Your task to perform on an android device: turn off data saver in the chrome app Image 0: 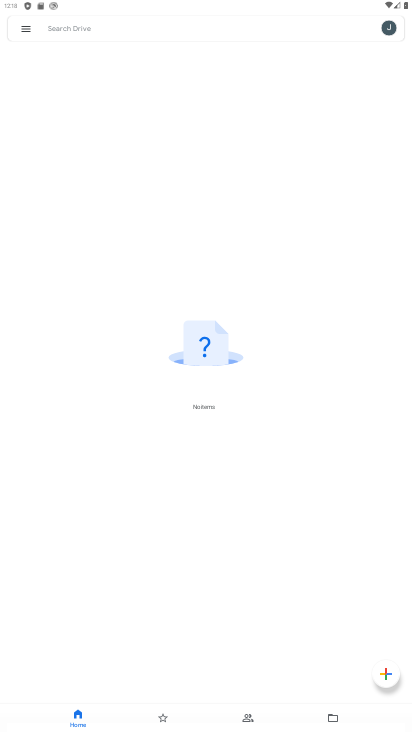
Step 0: drag from (185, 731) to (190, 117)
Your task to perform on an android device: turn off data saver in the chrome app Image 1: 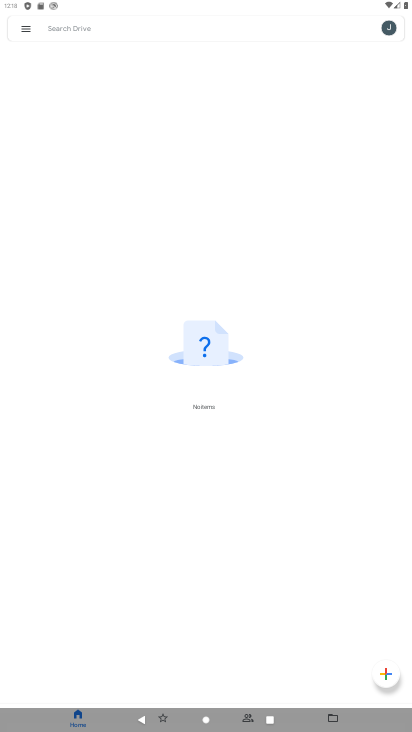
Step 1: click (205, 721)
Your task to perform on an android device: turn off data saver in the chrome app Image 2: 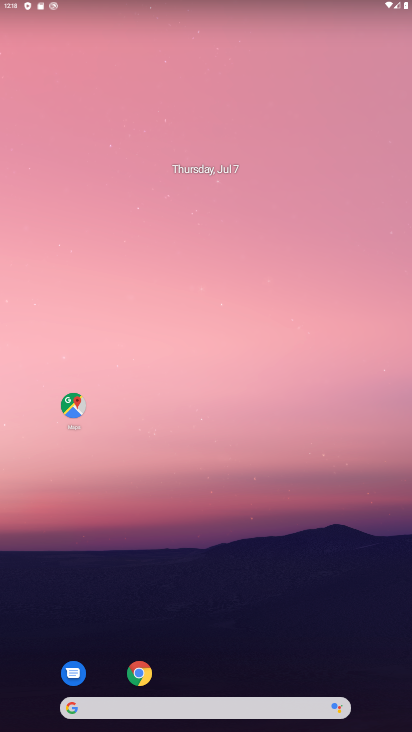
Step 2: click (131, 668)
Your task to perform on an android device: turn off data saver in the chrome app Image 3: 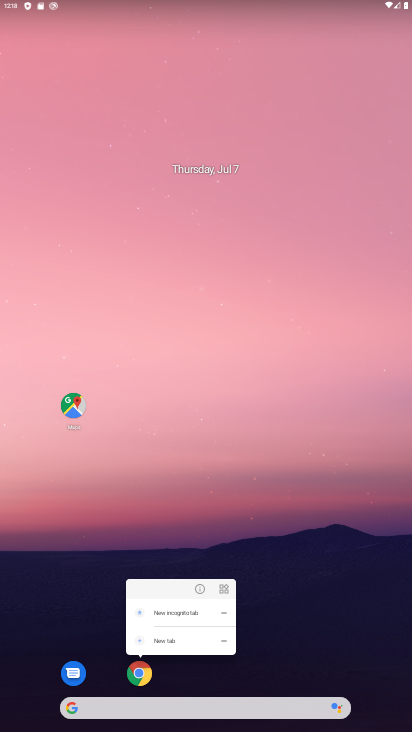
Step 3: click (143, 670)
Your task to perform on an android device: turn off data saver in the chrome app Image 4: 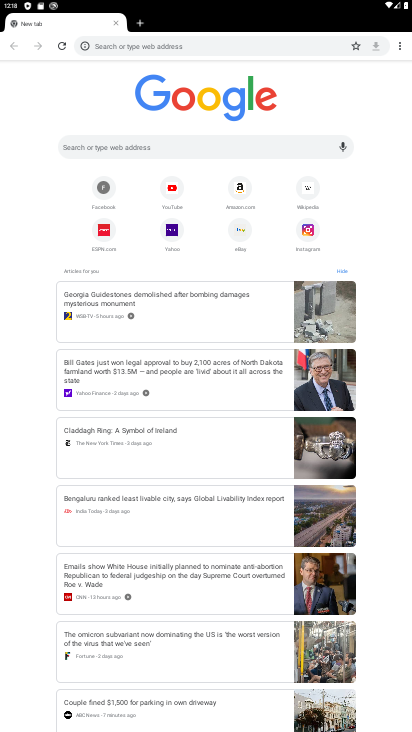
Step 4: click (405, 47)
Your task to perform on an android device: turn off data saver in the chrome app Image 5: 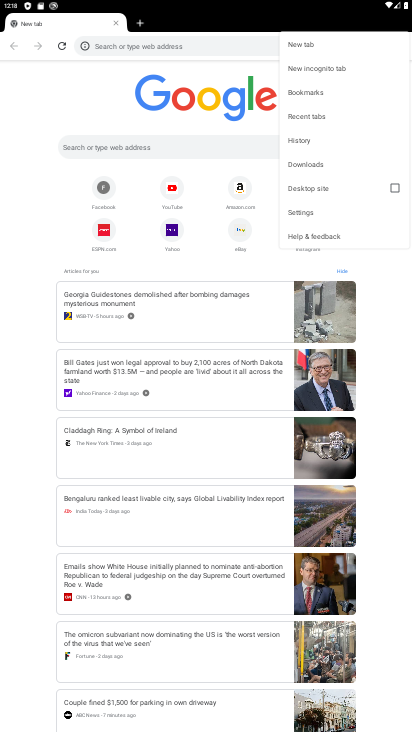
Step 5: click (311, 209)
Your task to perform on an android device: turn off data saver in the chrome app Image 6: 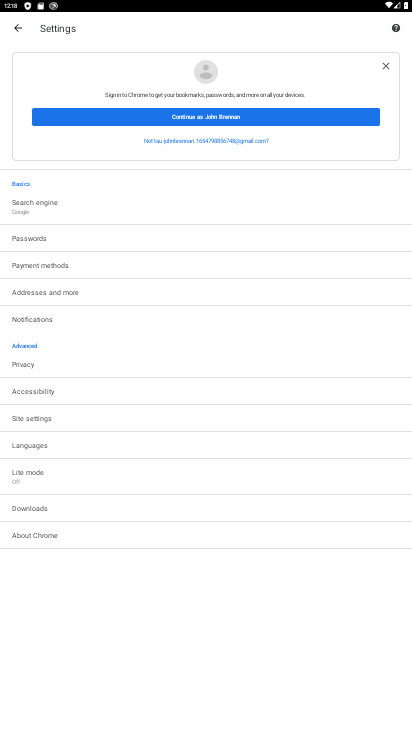
Step 6: click (57, 469)
Your task to perform on an android device: turn off data saver in the chrome app Image 7: 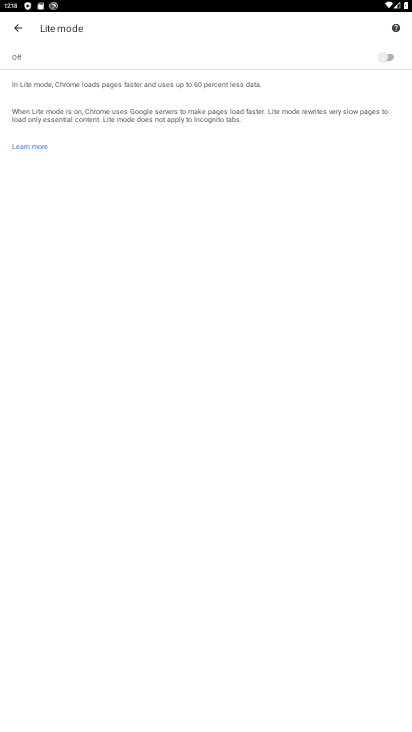
Step 7: click (393, 60)
Your task to perform on an android device: turn off data saver in the chrome app Image 8: 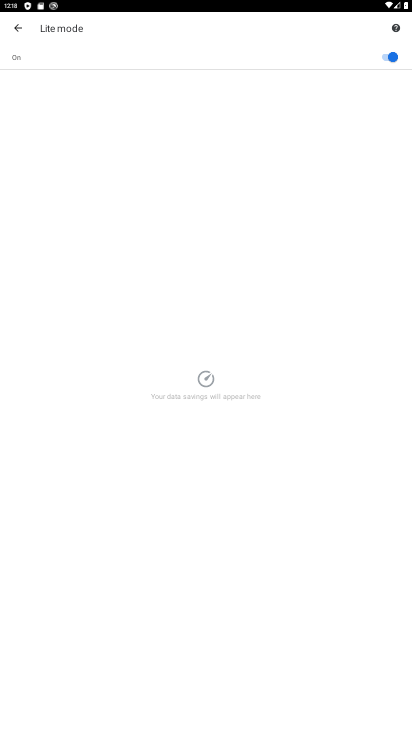
Step 8: task complete